Your task to perform on an android device: turn on data saver in the chrome app Image 0: 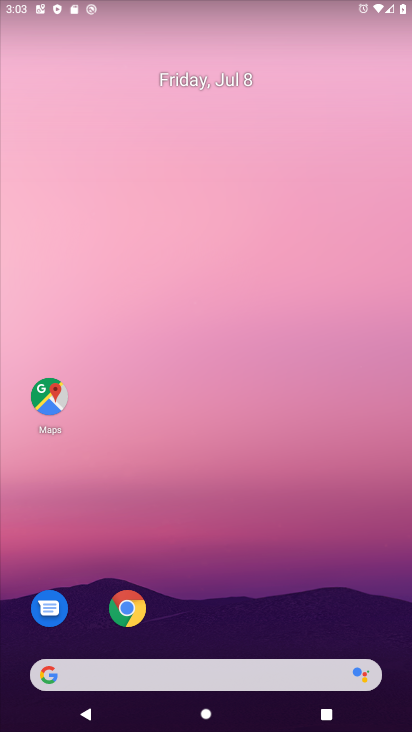
Step 0: drag from (218, 670) to (214, 7)
Your task to perform on an android device: turn on data saver in the chrome app Image 1: 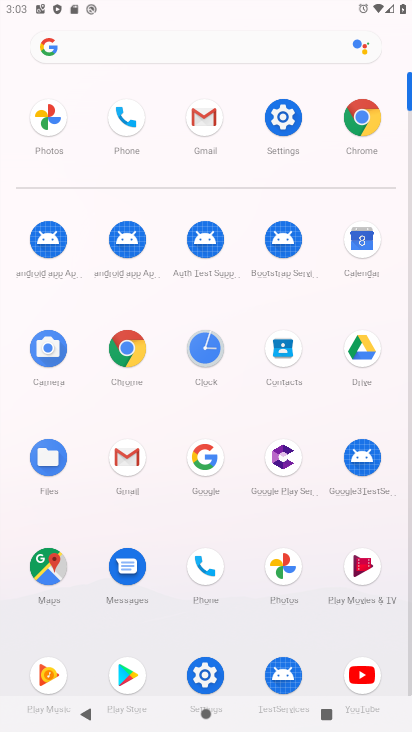
Step 1: click (124, 348)
Your task to perform on an android device: turn on data saver in the chrome app Image 2: 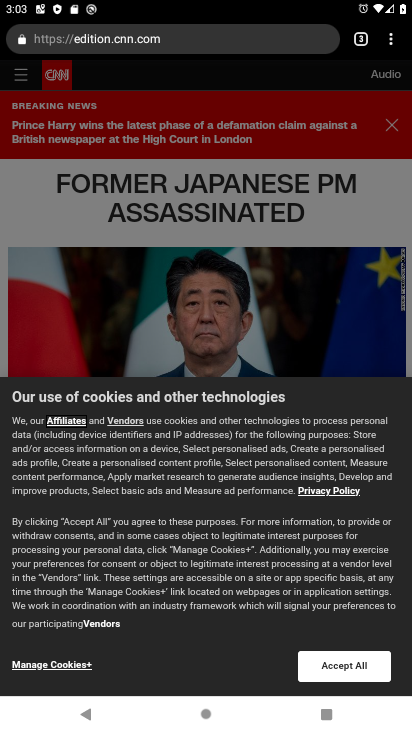
Step 2: click (390, 46)
Your task to perform on an android device: turn on data saver in the chrome app Image 3: 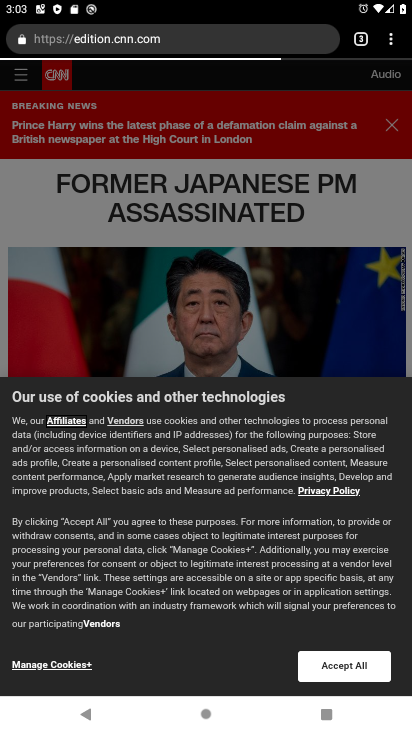
Step 3: drag from (390, 53) to (270, 470)
Your task to perform on an android device: turn on data saver in the chrome app Image 4: 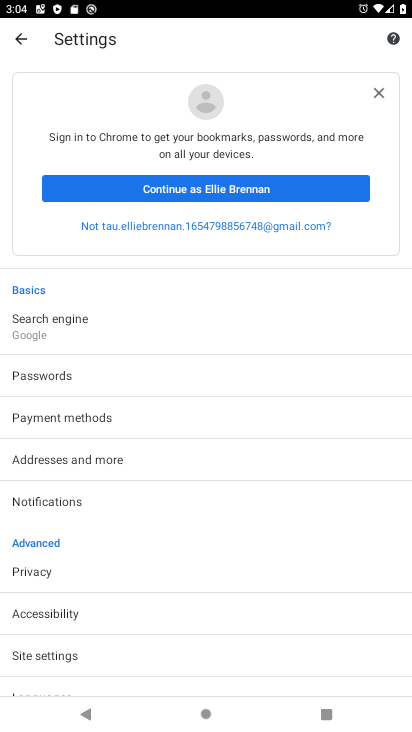
Step 4: drag from (71, 610) to (124, 315)
Your task to perform on an android device: turn on data saver in the chrome app Image 5: 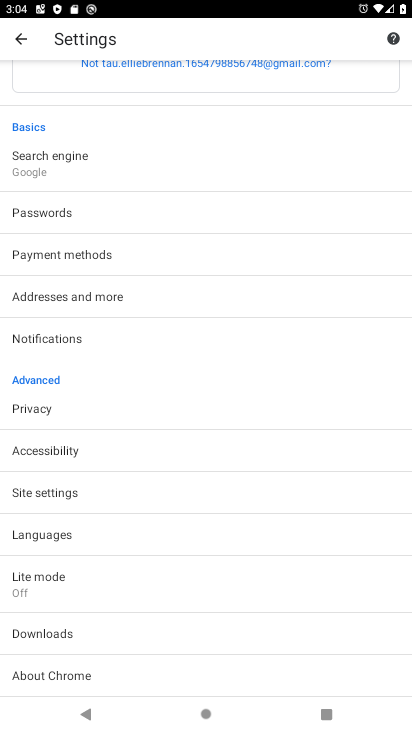
Step 5: click (84, 497)
Your task to perform on an android device: turn on data saver in the chrome app Image 6: 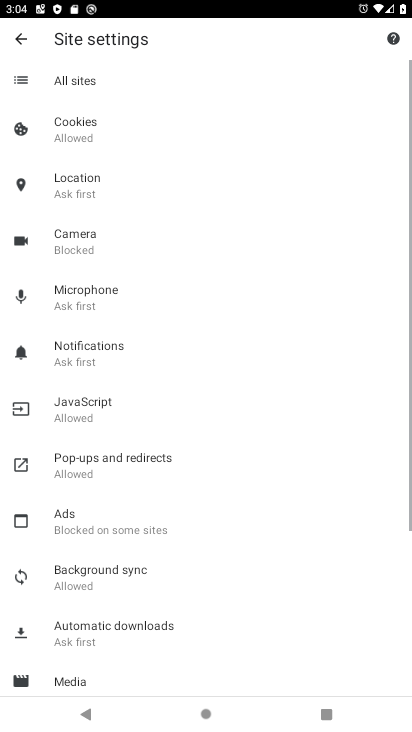
Step 6: press back button
Your task to perform on an android device: turn on data saver in the chrome app Image 7: 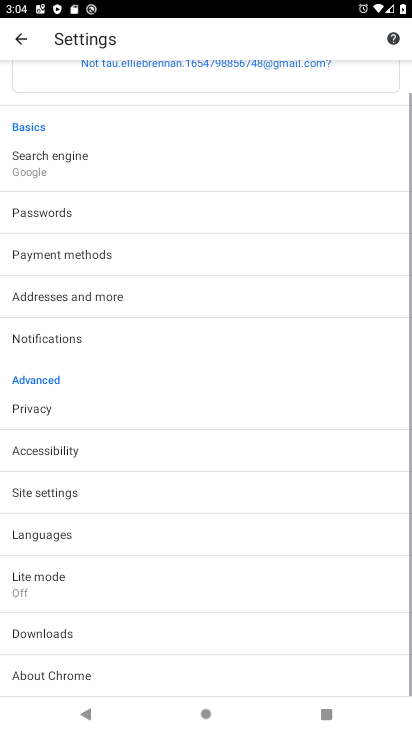
Step 7: click (66, 583)
Your task to perform on an android device: turn on data saver in the chrome app Image 8: 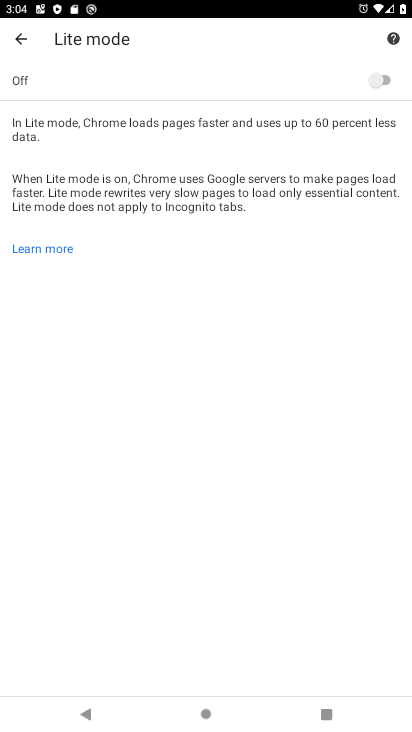
Step 8: click (382, 80)
Your task to perform on an android device: turn on data saver in the chrome app Image 9: 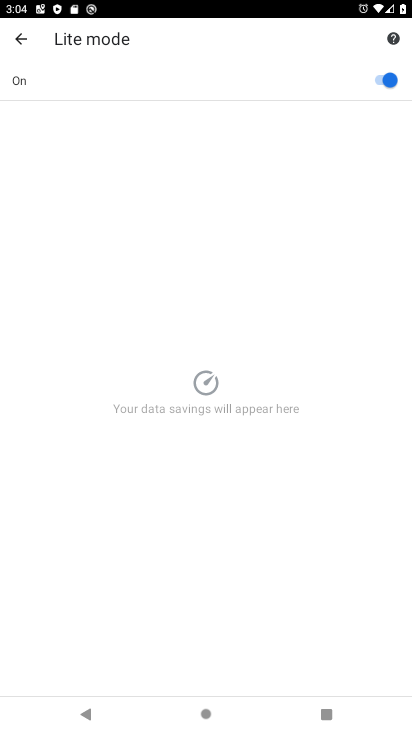
Step 9: task complete